Your task to perform on an android device: Open Google Image 0: 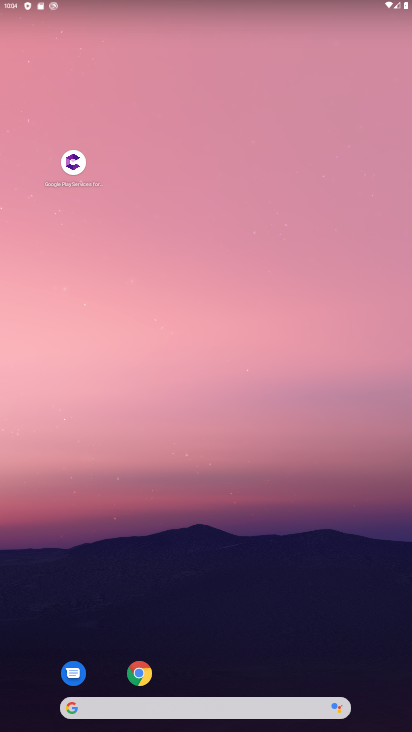
Step 0: drag from (231, 666) to (234, 103)
Your task to perform on an android device: Open Google Image 1: 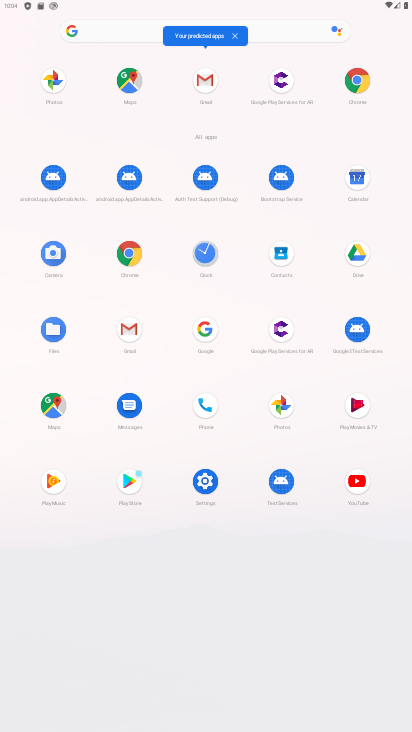
Step 1: click (216, 323)
Your task to perform on an android device: Open Google Image 2: 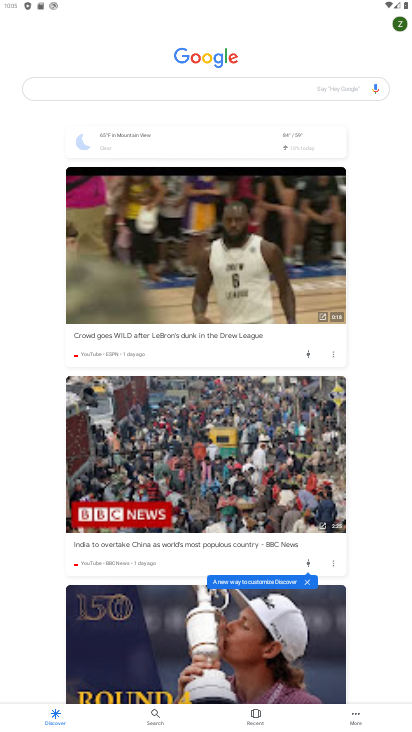
Step 2: task complete